Your task to perform on an android device: Open Yahoo.com Image 0: 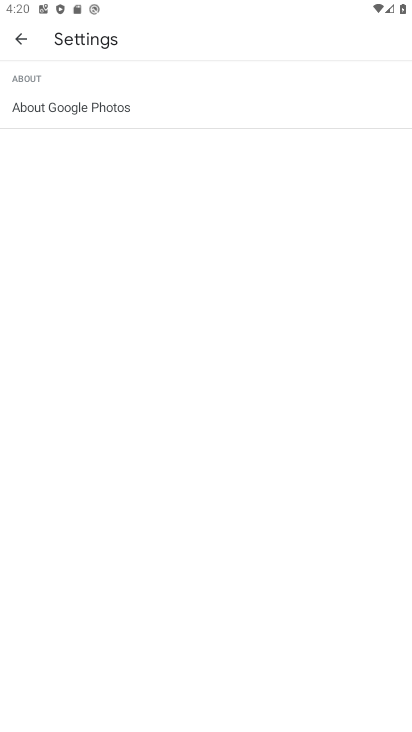
Step 0: click (19, 35)
Your task to perform on an android device: Open Yahoo.com Image 1: 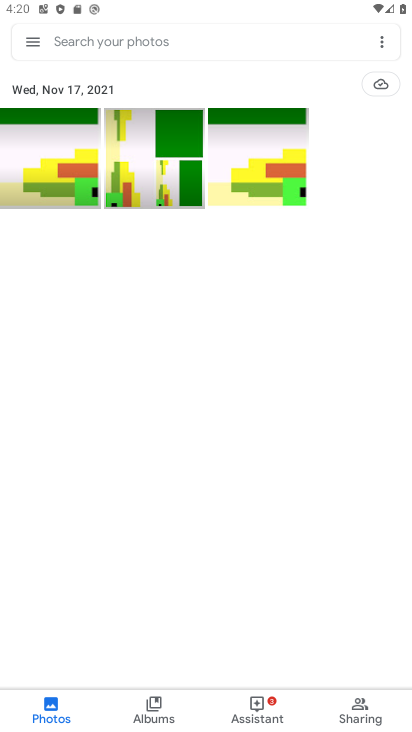
Step 1: press home button
Your task to perform on an android device: Open Yahoo.com Image 2: 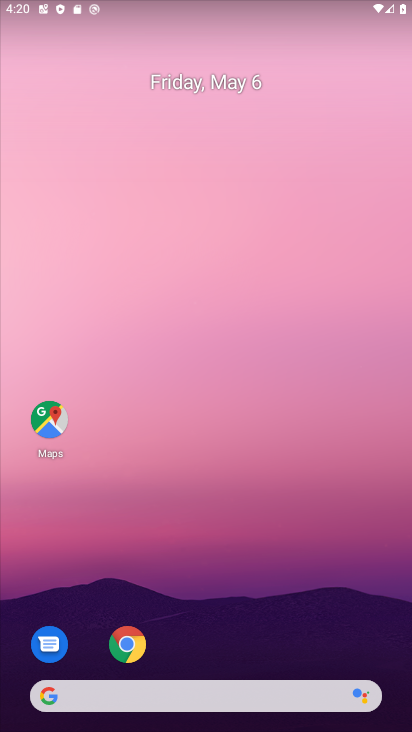
Step 2: drag from (306, 637) to (133, 121)
Your task to perform on an android device: Open Yahoo.com Image 3: 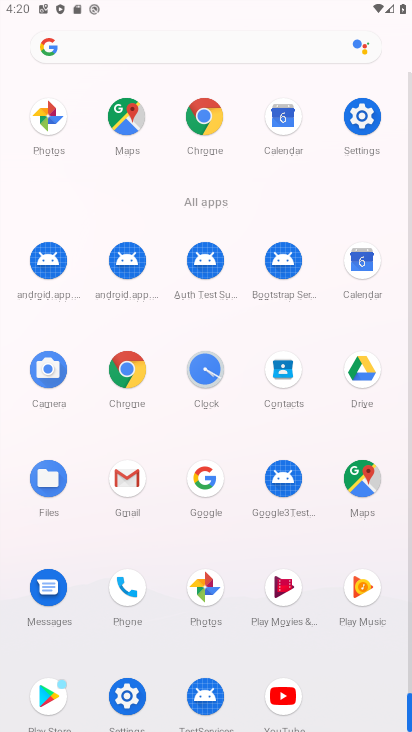
Step 3: click (203, 129)
Your task to perform on an android device: Open Yahoo.com Image 4: 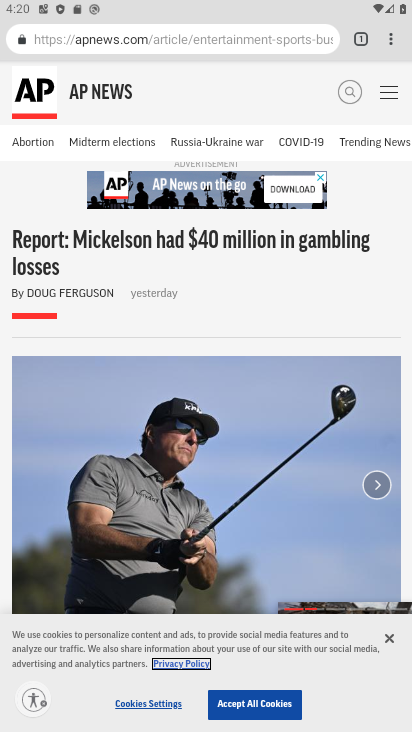
Step 4: click (391, 43)
Your task to perform on an android device: Open Yahoo.com Image 5: 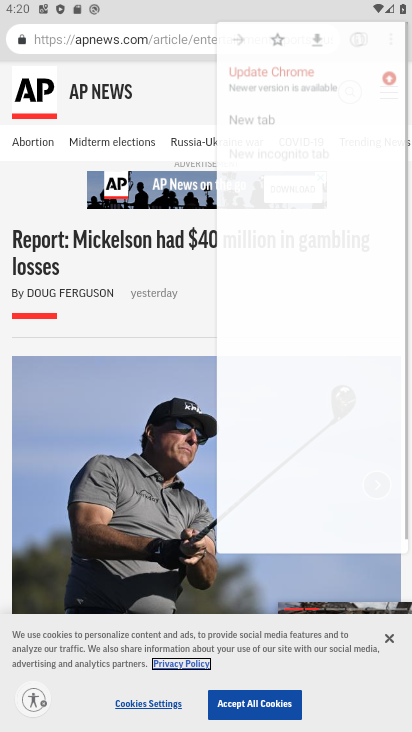
Step 5: click (391, 43)
Your task to perform on an android device: Open Yahoo.com Image 6: 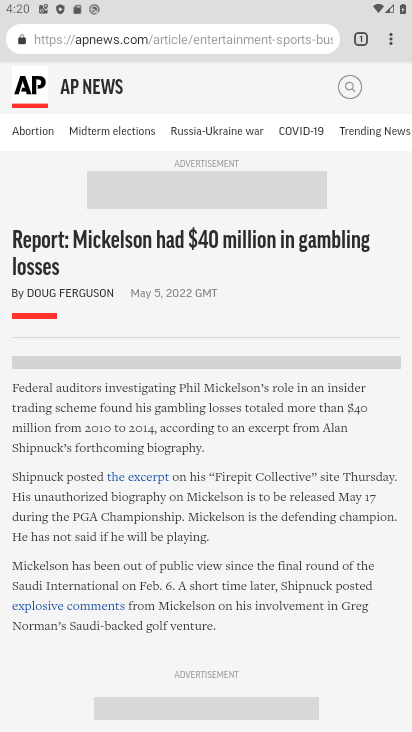
Step 6: drag from (383, 40) to (240, 121)
Your task to perform on an android device: Open Yahoo.com Image 7: 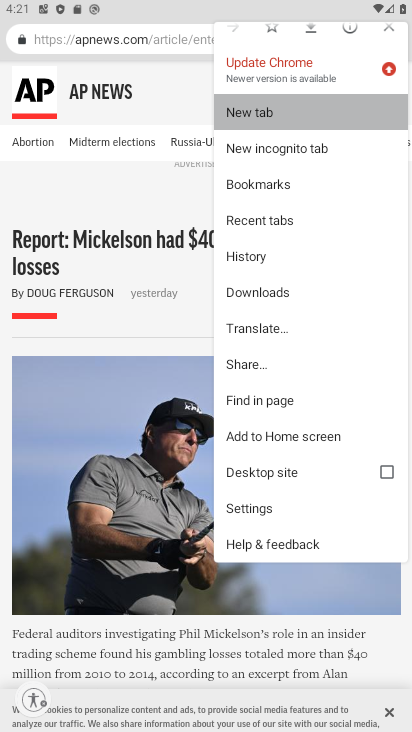
Step 7: click (241, 119)
Your task to perform on an android device: Open Yahoo.com Image 8: 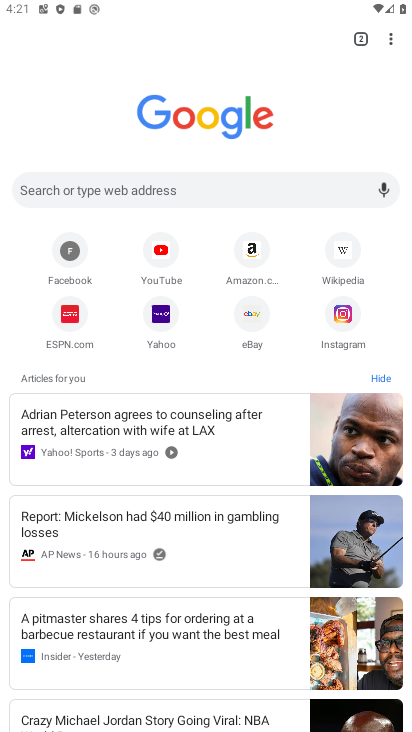
Step 8: click (165, 314)
Your task to perform on an android device: Open Yahoo.com Image 9: 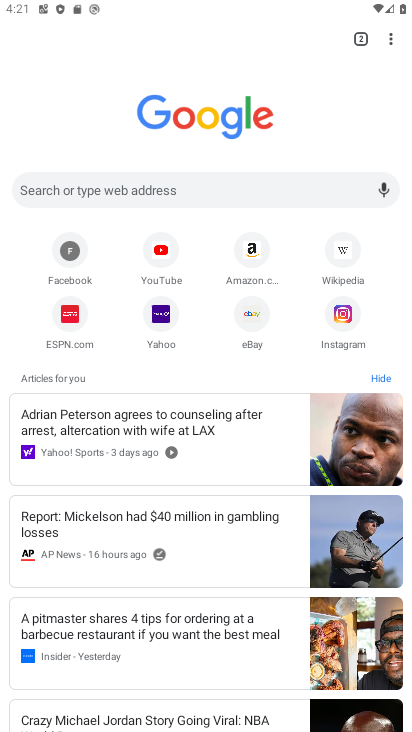
Step 9: click (165, 313)
Your task to perform on an android device: Open Yahoo.com Image 10: 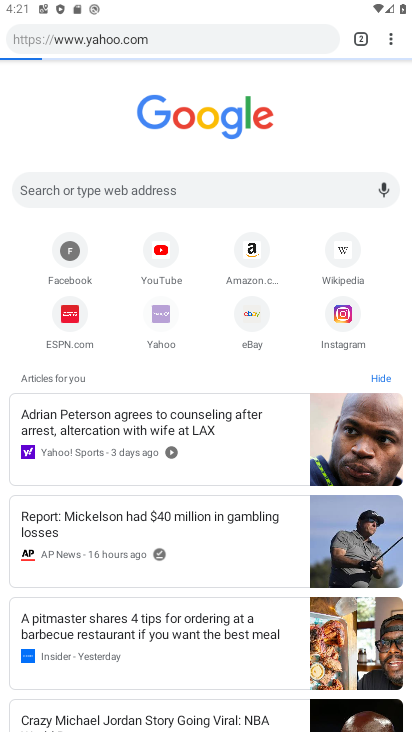
Step 10: click (167, 307)
Your task to perform on an android device: Open Yahoo.com Image 11: 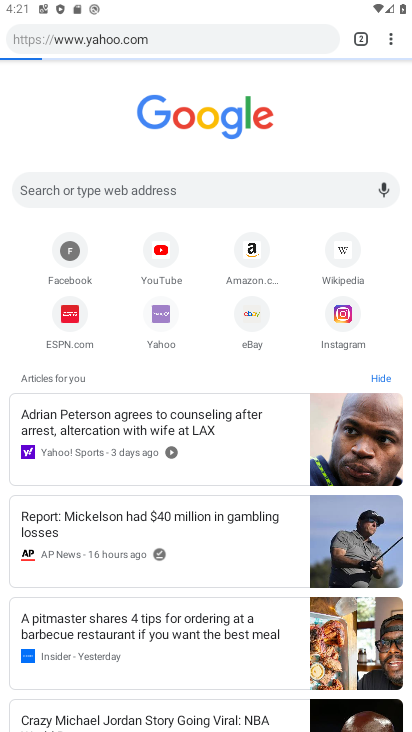
Step 11: click (160, 309)
Your task to perform on an android device: Open Yahoo.com Image 12: 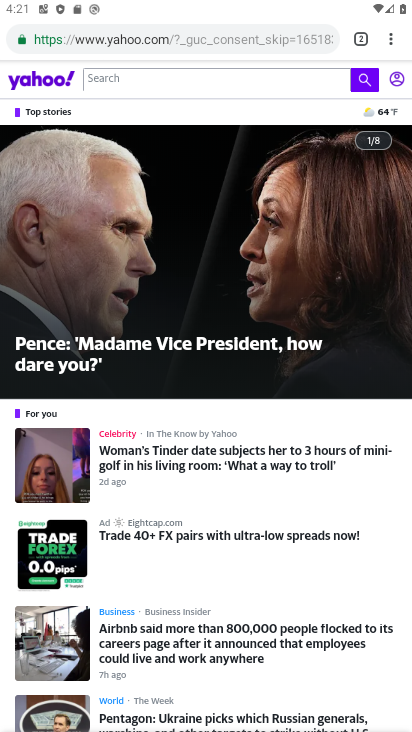
Step 12: task complete